Your task to perform on an android device: turn off location Image 0: 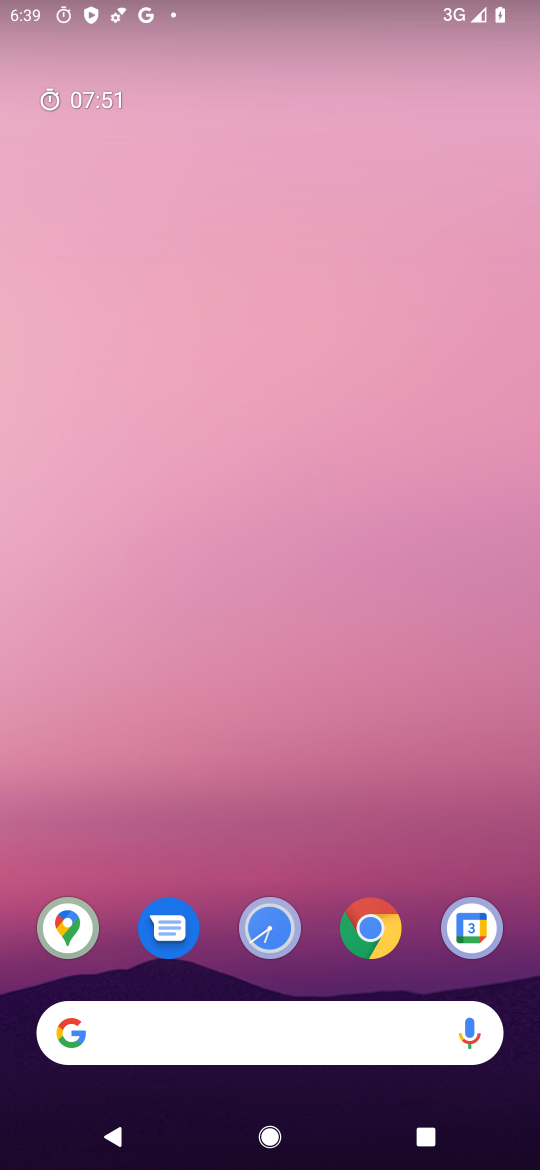
Step 0: drag from (306, 851) to (377, 185)
Your task to perform on an android device: turn off location Image 1: 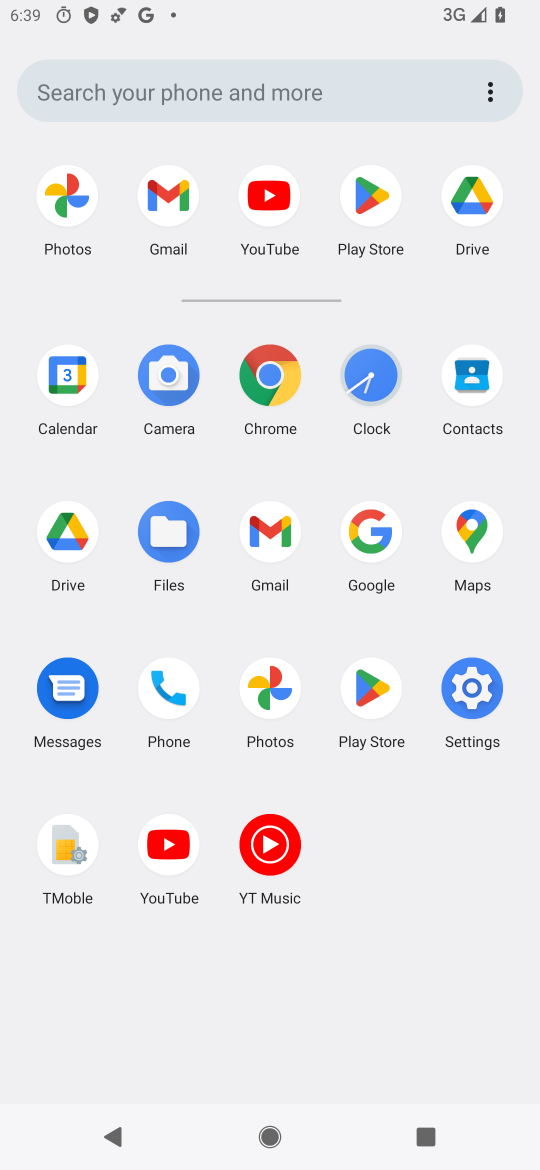
Step 1: click (478, 701)
Your task to perform on an android device: turn off location Image 2: 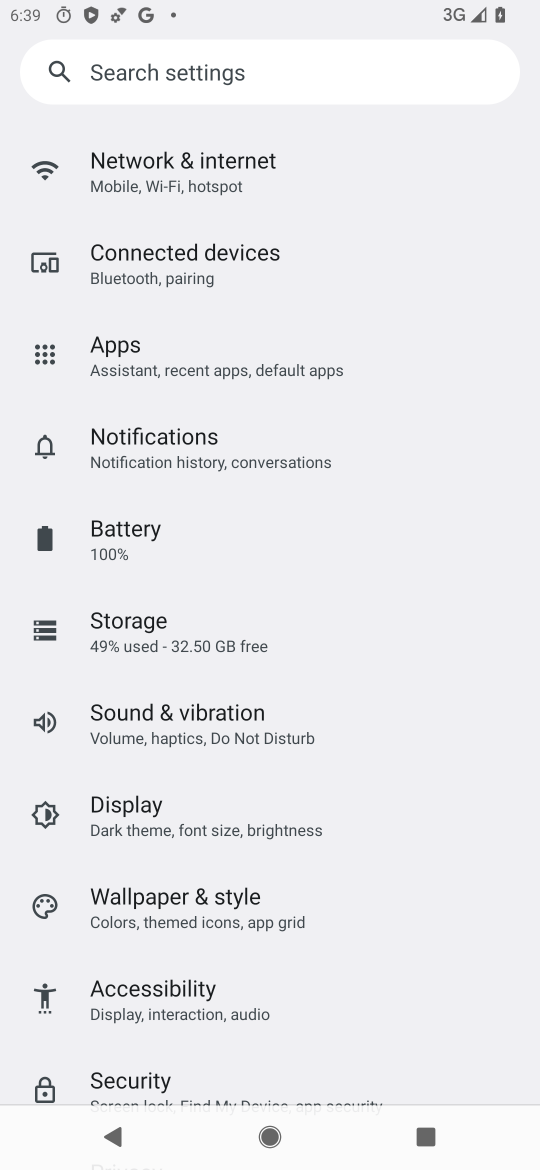
Step 2: drag from (437, 898) to (462, 735)
Your task to perform on an android device: turn off location Image 3: 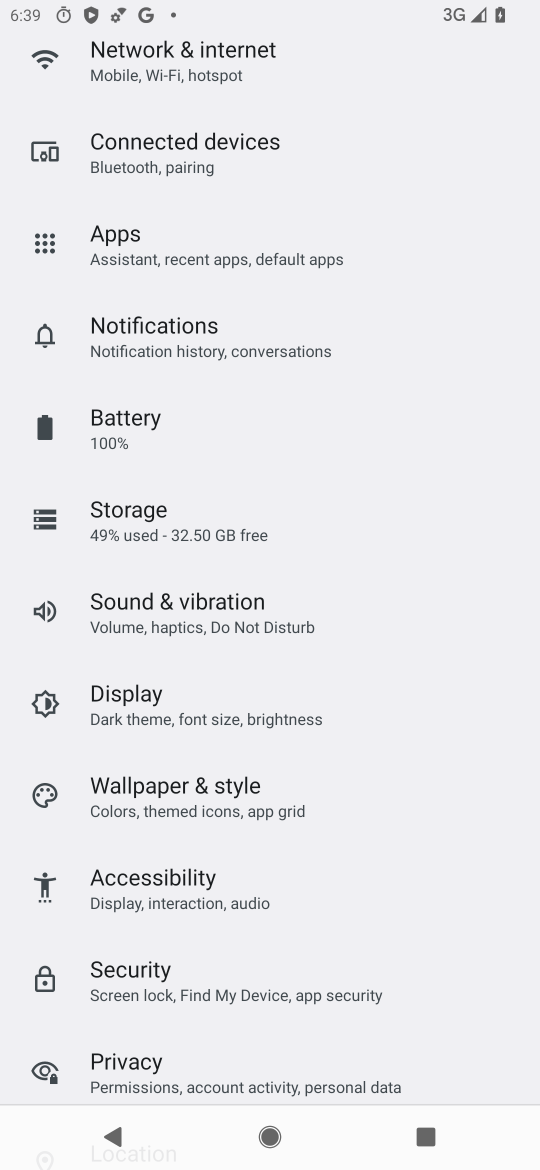
Step 3: drag from (451, 978) to (468, 813)
Your task to perform on an android device: turn off location Image 4: 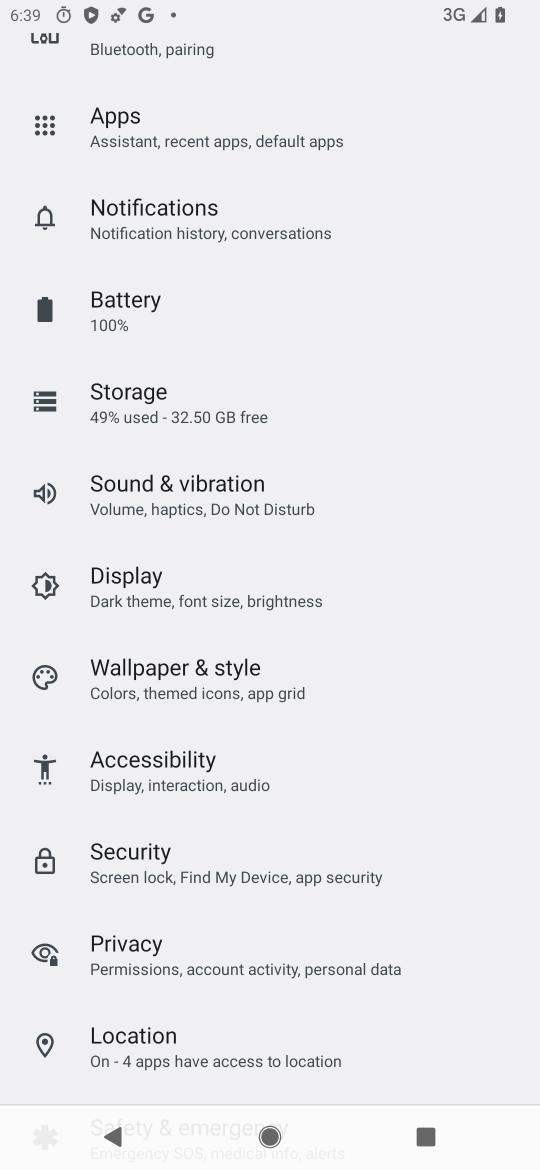
Step 4: drag from (433, 1017) to (448, 871)
Your task to perform on an android device: turn off location Image 5: 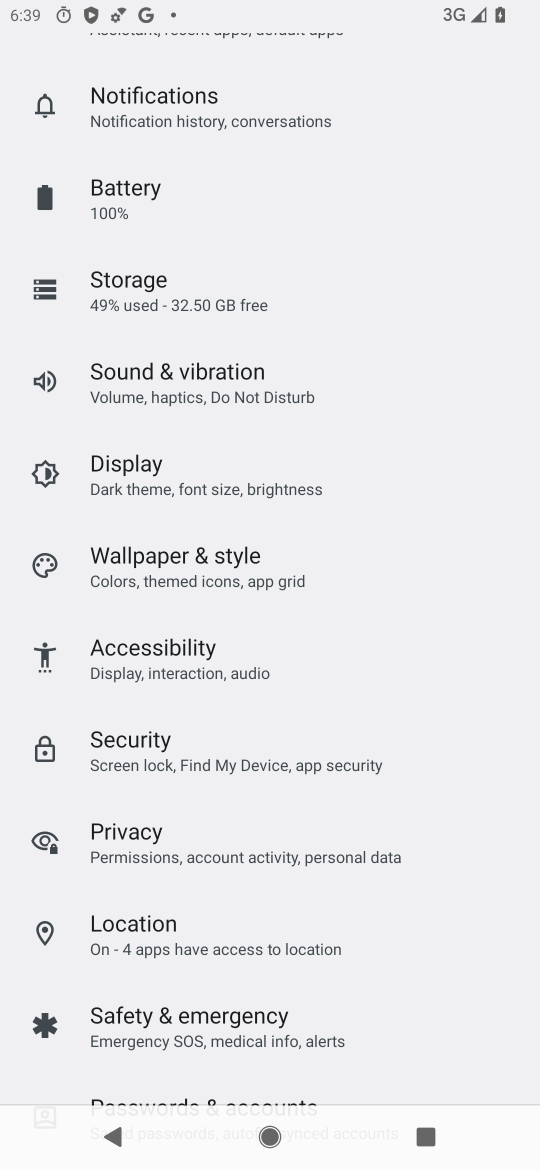
Step 5: drag from (448, 1033) to (454, 821)
Your task to perform on an android device: turn off location Image 6: 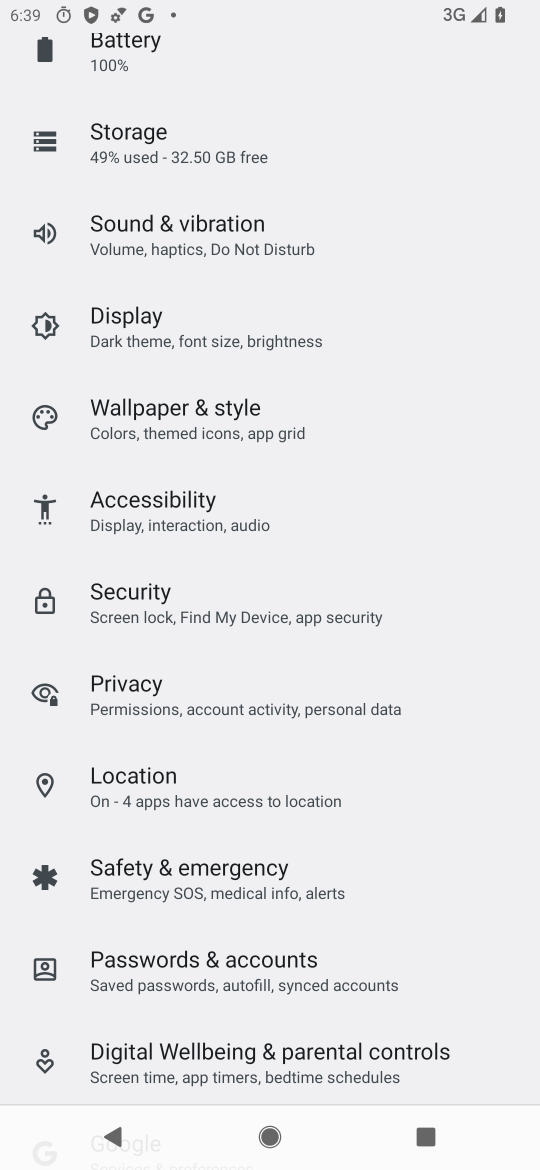
Step 6: drag from (454, 986) to (461, 687)
Your task to perform on an android device: turn off location Image 7: 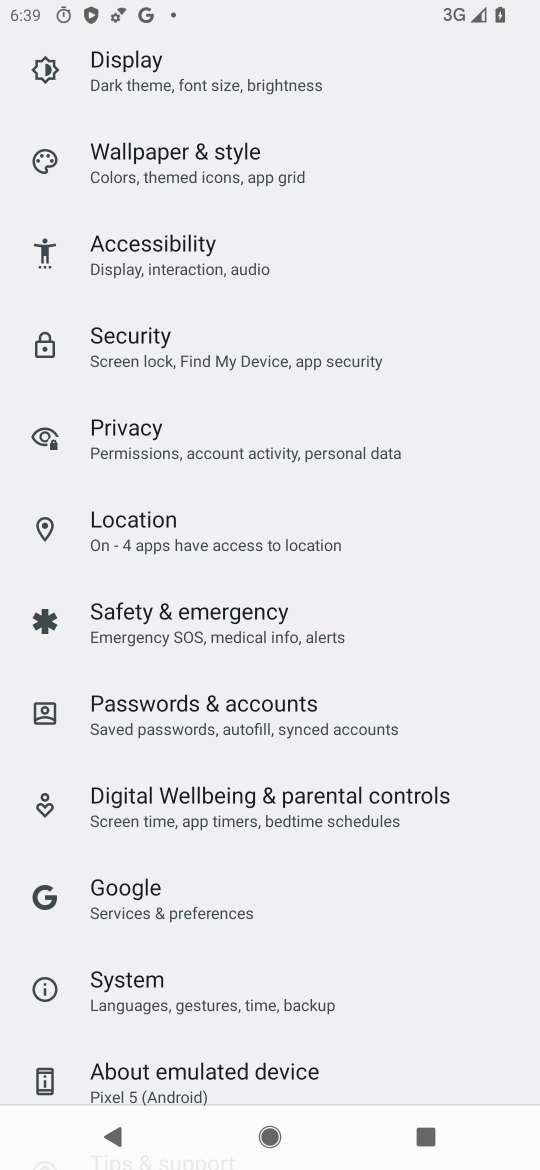
Step 7: drag from (450, 999) to (472, 669)
Your task to perform on an android device: turn off location Image 8: 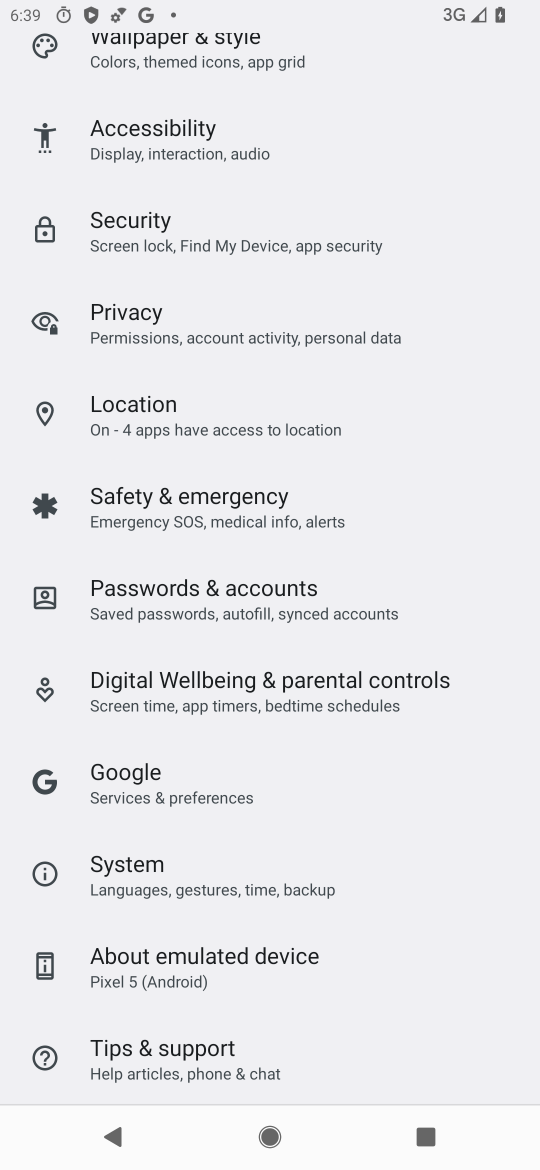
Step 8: click (335, 414)
Your task to perform on an android device: turn off location Image 9: 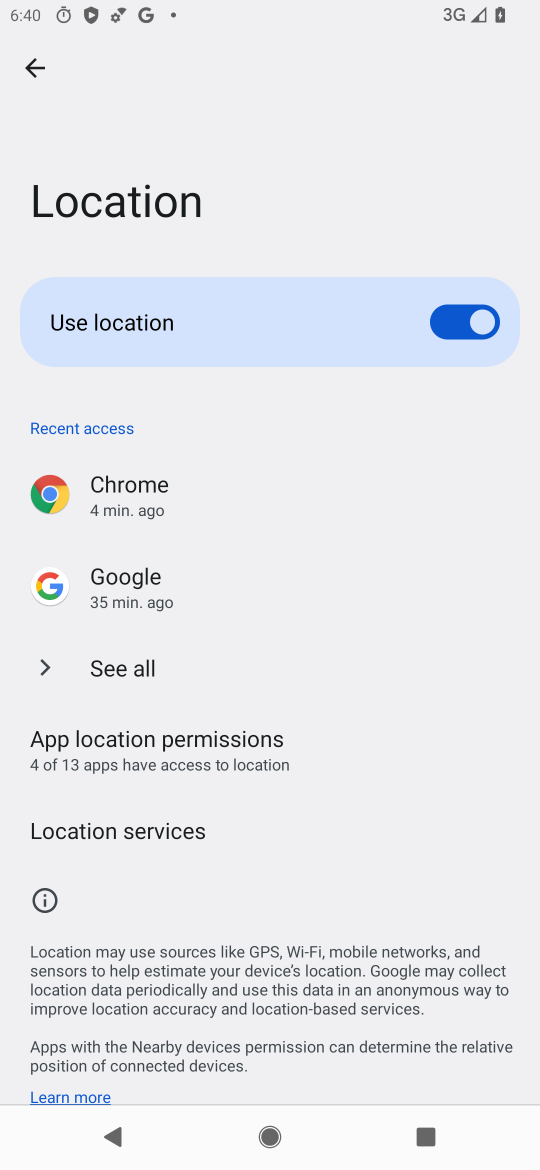
Step 9: drag from (393, 847) to (403, 594)
Your task to perform on an android device: turn off location Image 10: 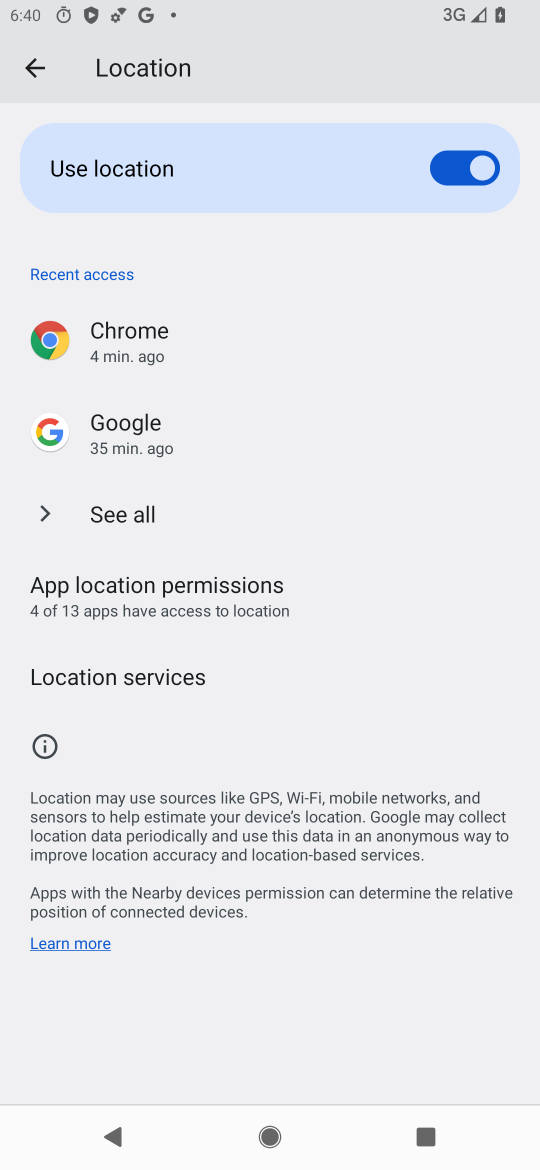
Step 10: drag from (375, 926) to (374, 554)
Your task to perform on an android device: turn off location Image 11: 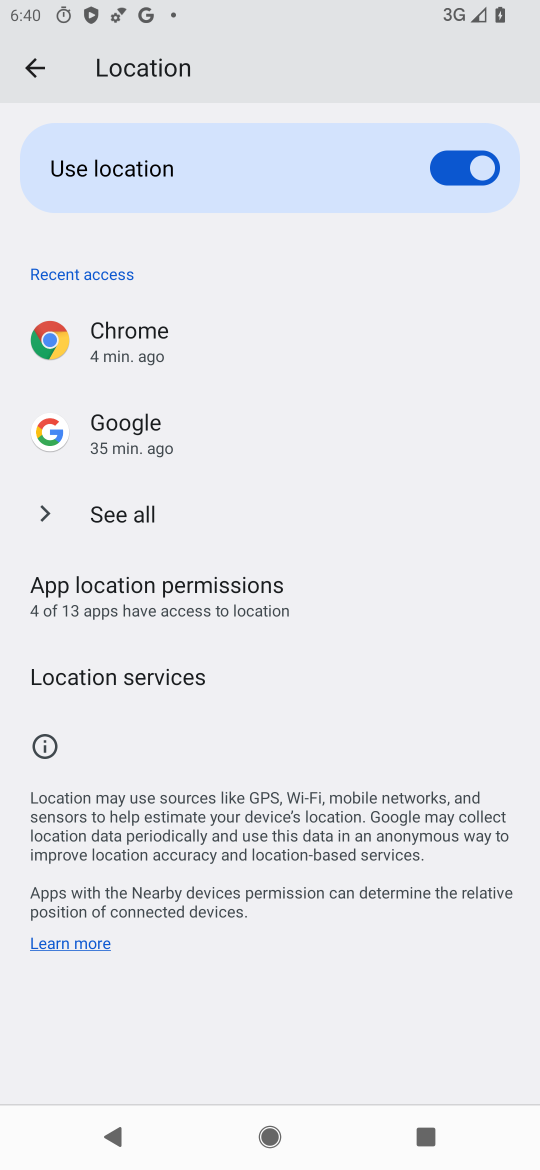
Step 11: click (467, 170)
Your task to perform on an android device: turn off location Image 12: 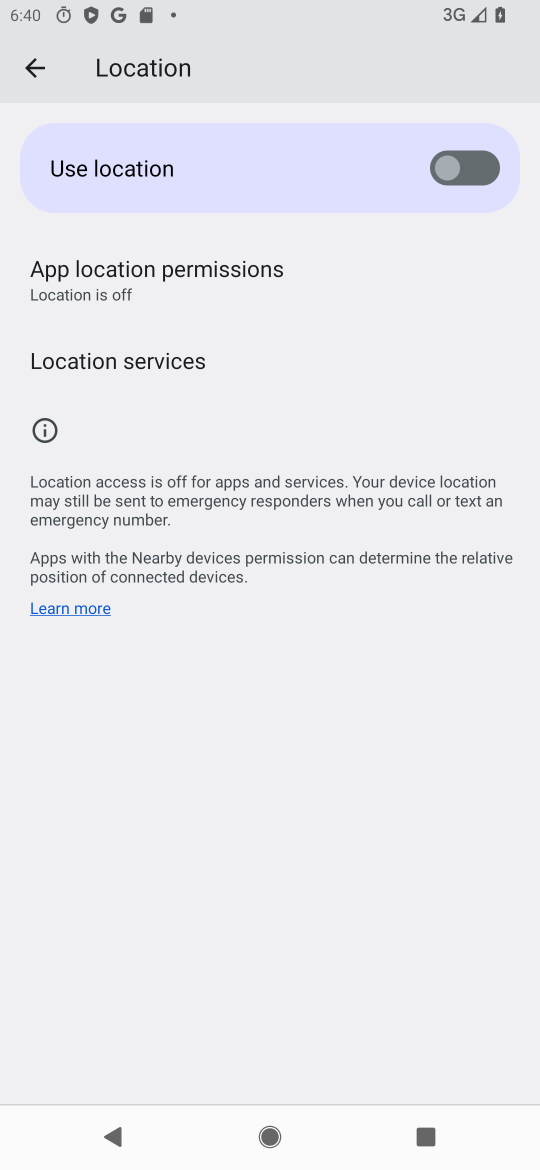
Step 12: task complete